Your task to perform on an android device: When is my next appointment? Image 0: 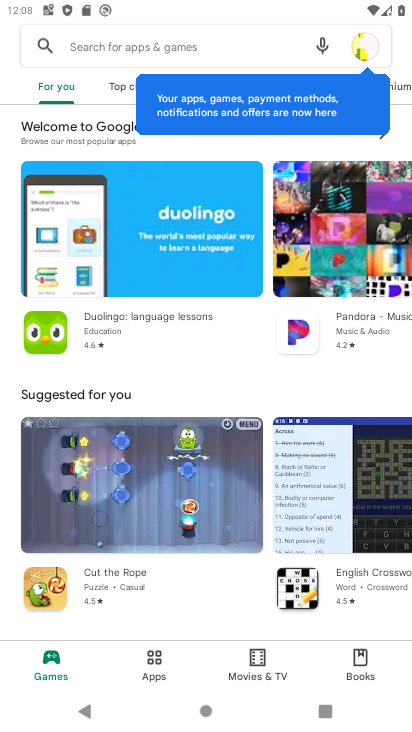
Step 0: press home button
Your task to perform on an android device: When is my next appointment? Image 1: 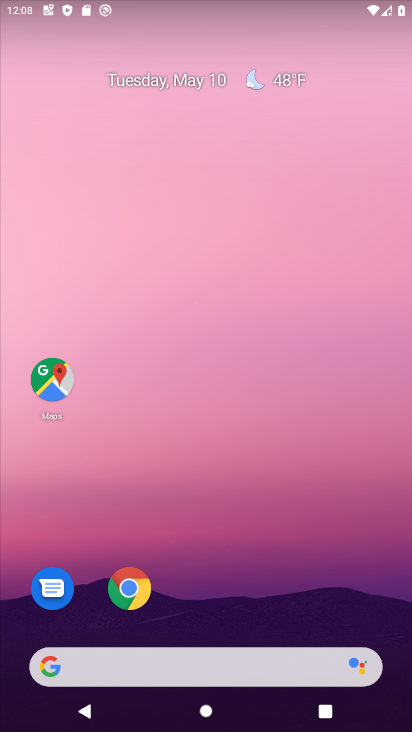
Step 1: drag from (272, 384) to (329, 92)
Your task to perform on an android device: When is my next appointment? Image 2: 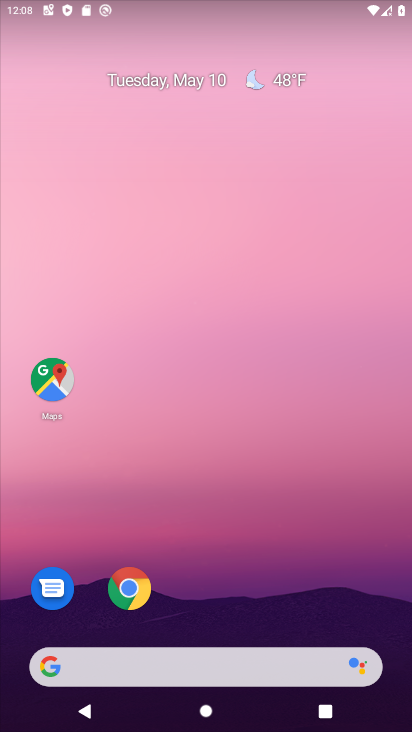
Step 2: drag from (283, 482) to (244, 302)
Your task to perform on an android device: When is my next appointment? Image 3: 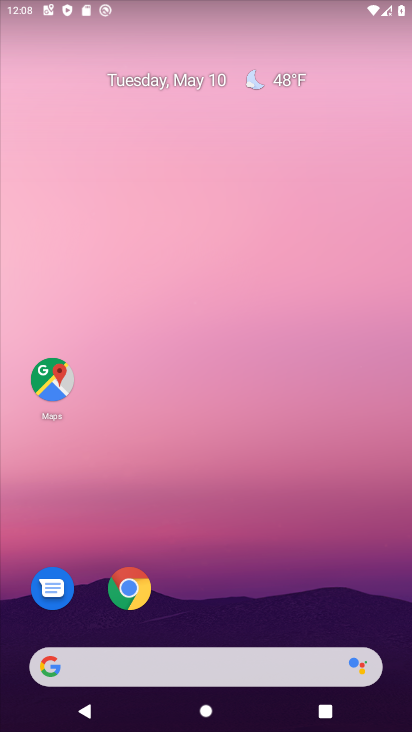
Step 3: drag from (221, 620) to (165, 355)
Your task to perform on an android device: When is my next appointment? Image 4: 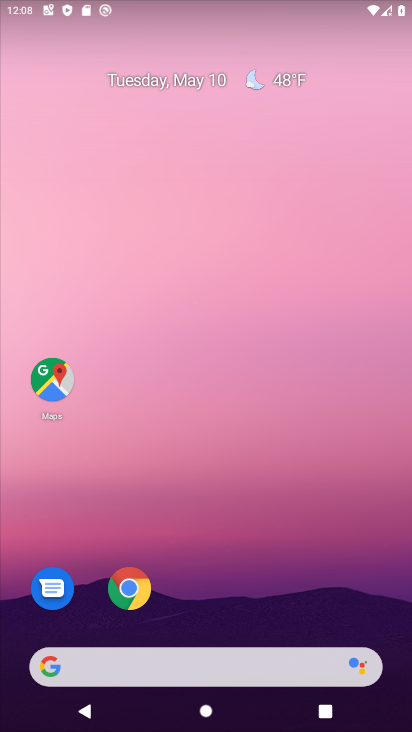
Step 4: drag from (237, 555) to (175, 379)
Your task to perform on an android device: When is my next appointment? Image 5: 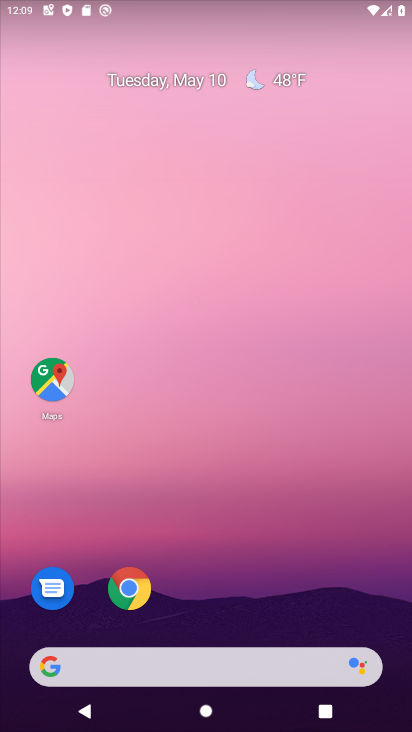
Step 5: drag from (234, 603) to (203, 282)
Your task to perform on an android device: When is my next appointment? Image 6: 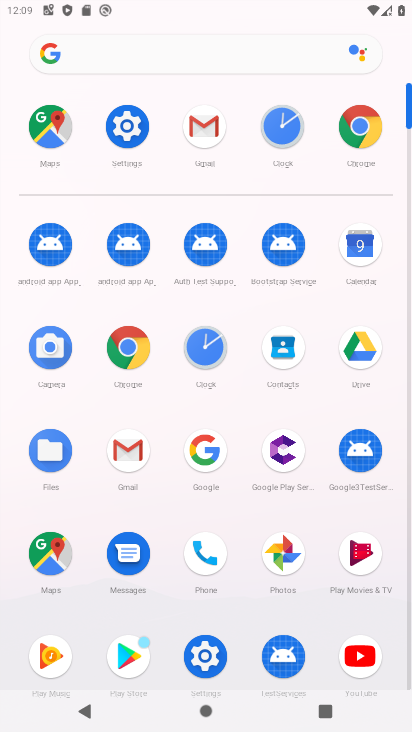
Step 6: click (342, 259)
Your task to perform on an android device: When is my next appointment? Image 7: 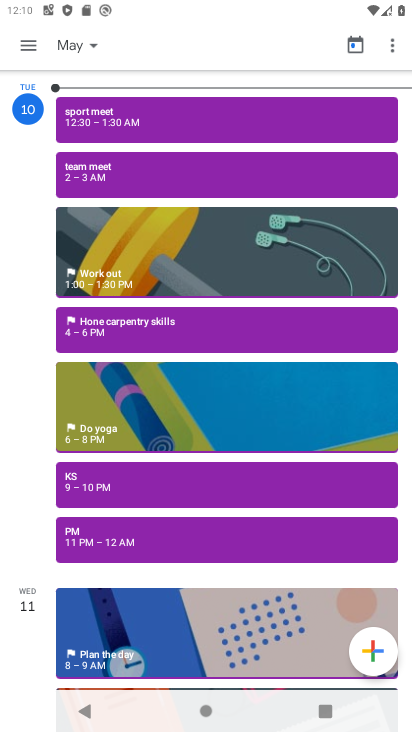
Step 7: task complete